Your task to perform on an android device: Open the calendar app, open the side menu, and click the "Day" option Image 0: 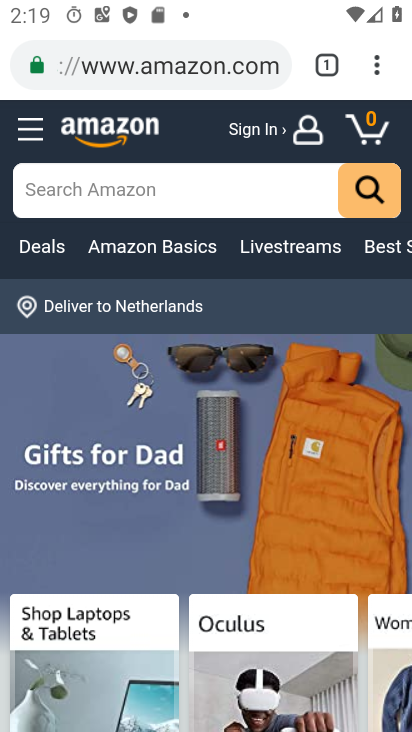
Step 0: press home button
Your task to perform on an android device: Open the calendar app, open the side menu, and click the "Day" option Image 1: 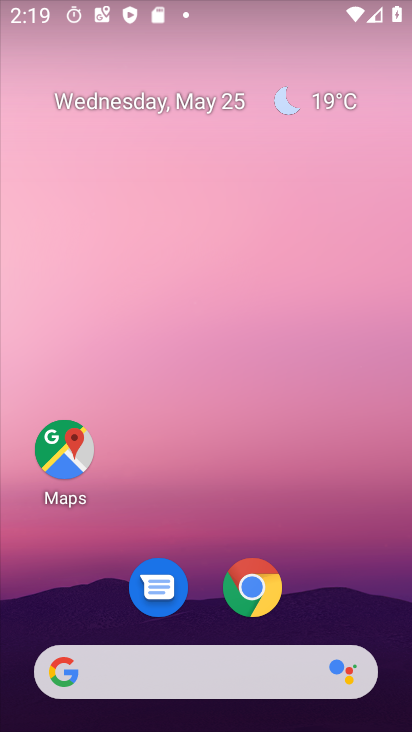
Step 1: drag from (200, 624) to (258, 136)
Your task to perform on an android device: Open the calendar app, open the side menu, and click the "Day" option Image 2: 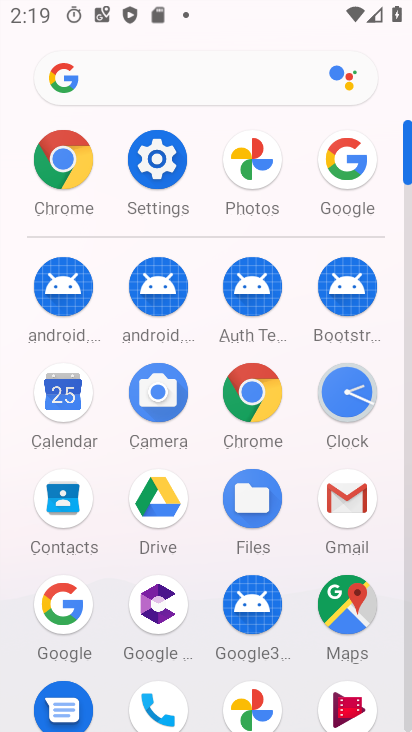
Step 2: click (55, 397)
Your task to perform on an android device: Open the calendar app, open the side menu, and click the "Day" option Image 3: 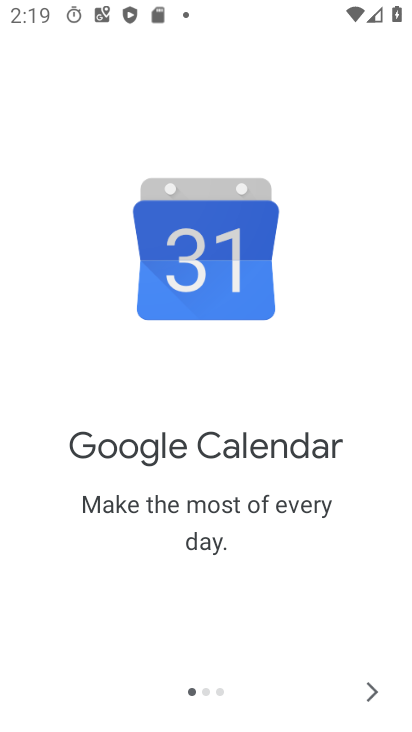
Step 3: click (359, 713)
Your task to perform on an android device: Open the calendar app, open the side menu, and click the "Day" option Image 4: 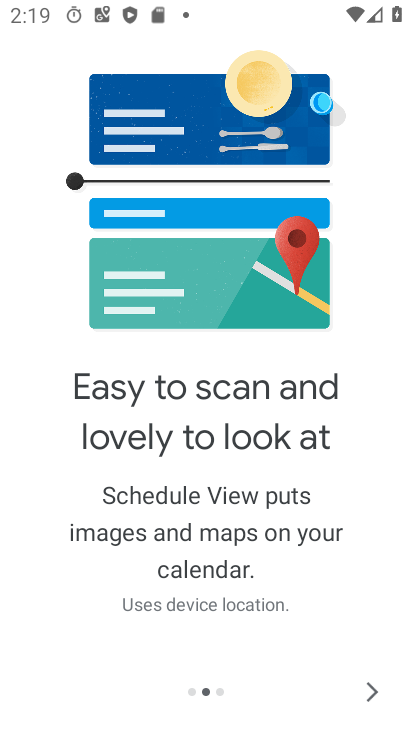
Step 4: click (363, 703)
Your task to perform on an android device: Open the calendar app, open the side menu, and click the "Day" option Image 5: 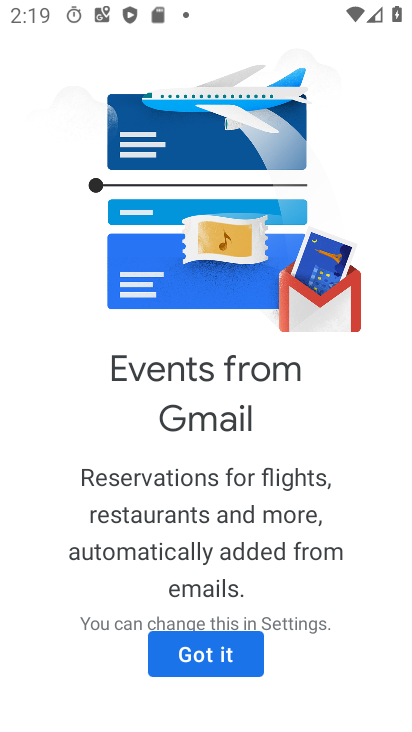
Step 5: drag from (363, 703) to (56, 572)
Your task to perform on an android device: Open the calendar app, open the side menu, and click the "Day" option Image 6: 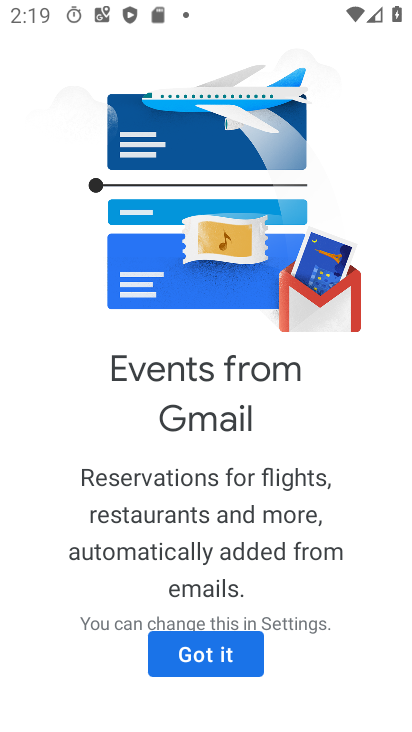
Step 6: click (194, 659)
Your task to perform on an android device: Open the calendar app, open the side menu, and click the "Day" option Image 7: 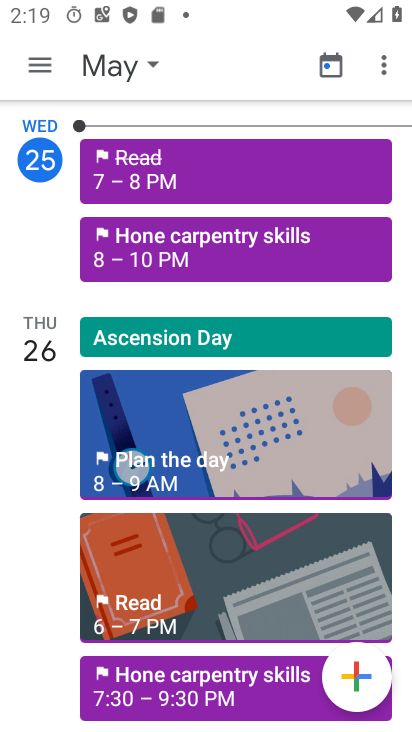
Step 7: click (41, 70)
Your task to perform on an android device: Open the calendar app, open the side menu, and click the "Day" option Image 8: 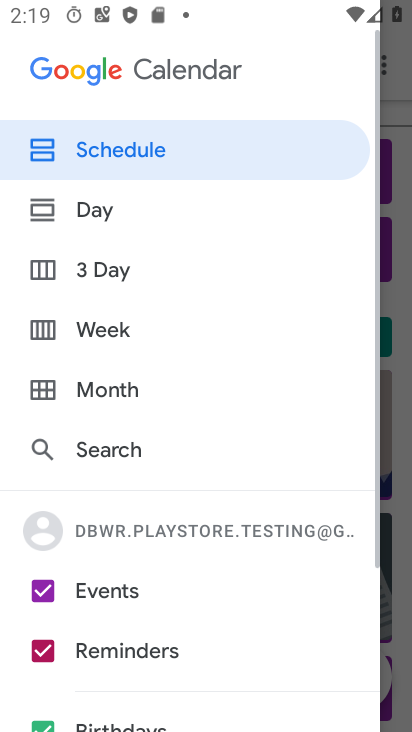
Step 8: click (110, 223)
Your task to perform on an android device: Open the calendar app, open the side menu, and click the "Day" option Image 9: 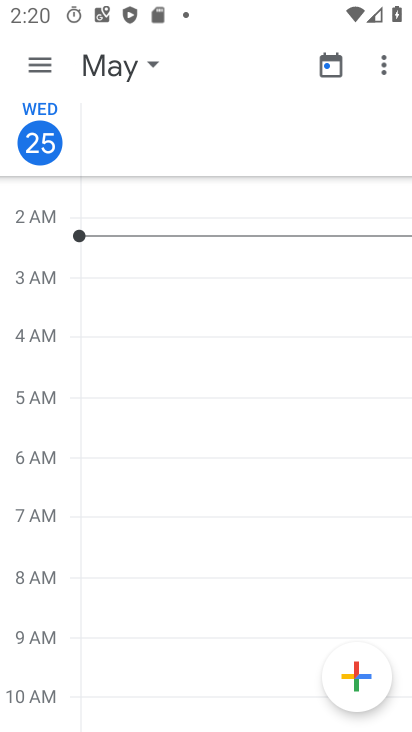
Step 9: task complete